Your task to perform on an android device: Toggle the flashlight Image 0: 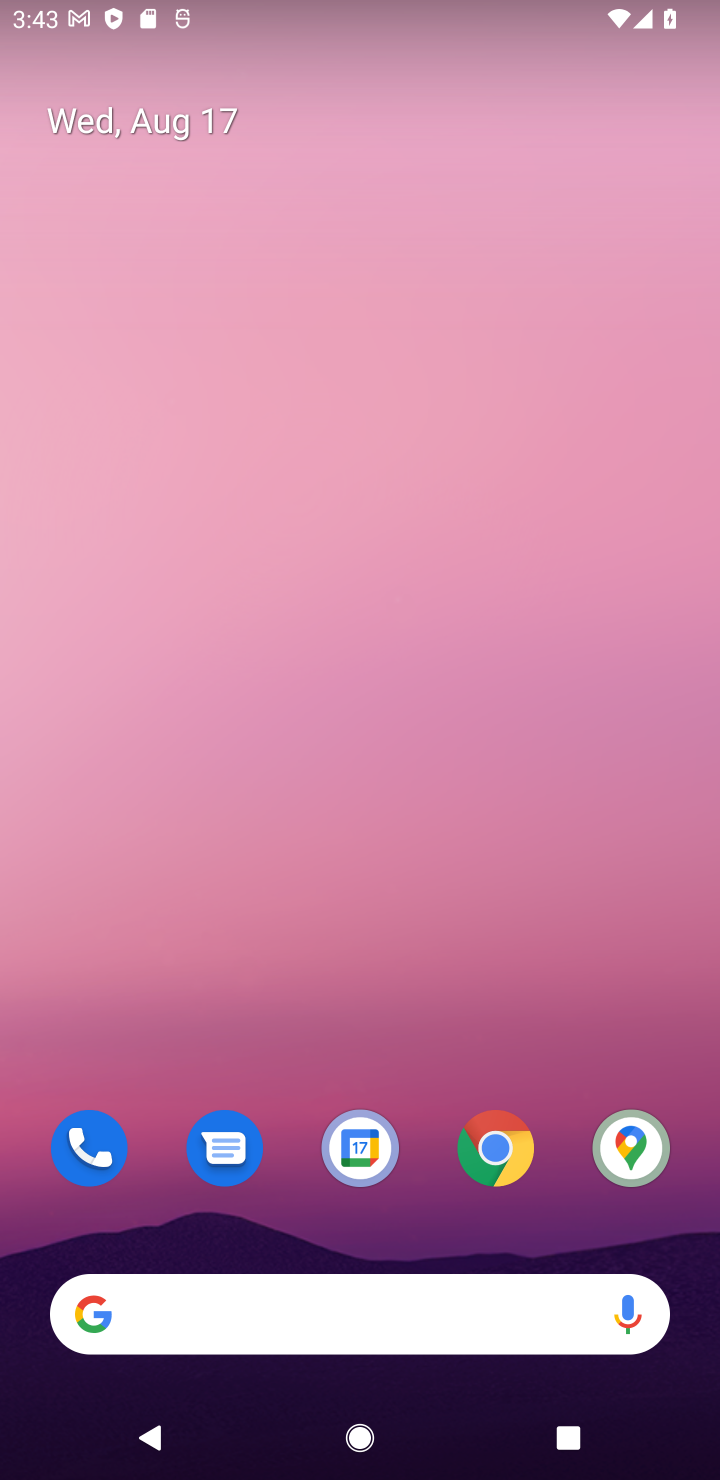
Step 0: drag from (604, 22) to (451, 1460)
Your task to perform on an android device: Toggle the flashlight Image 1: 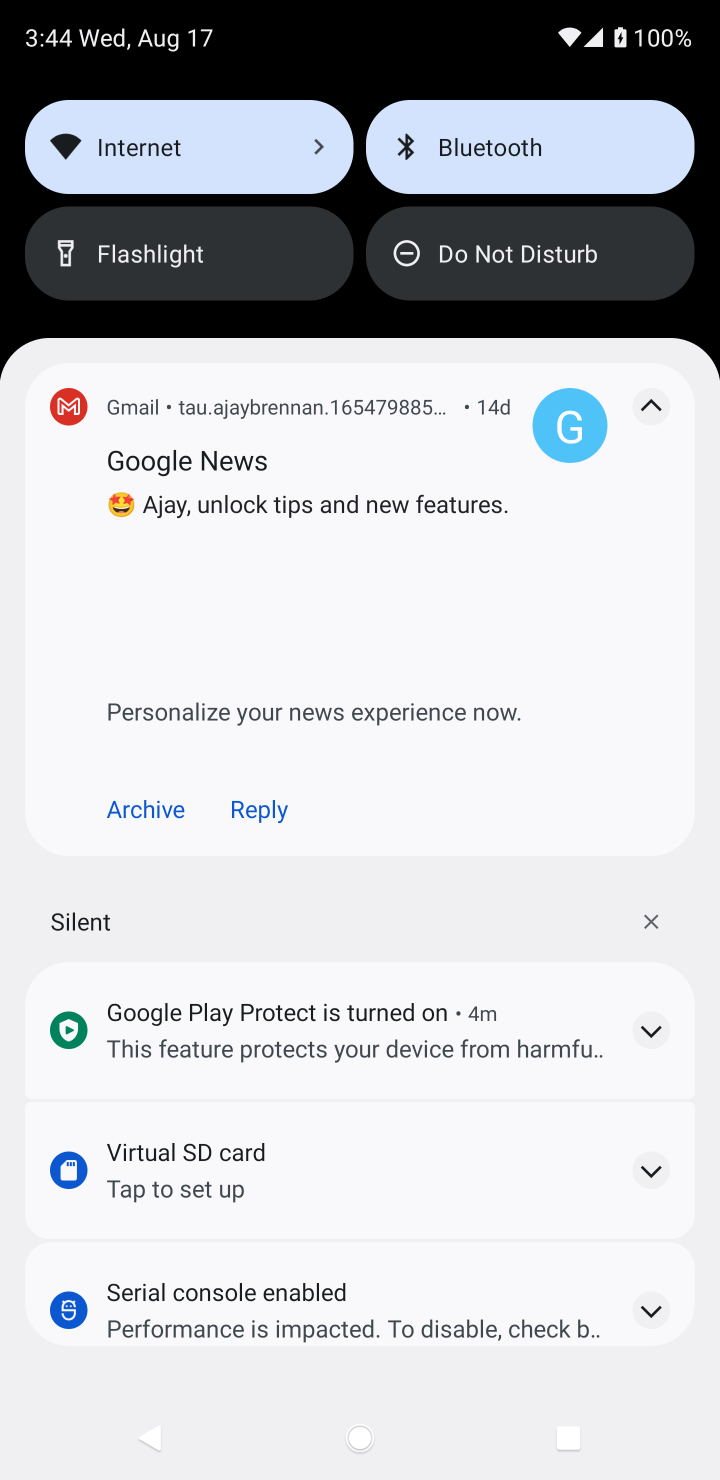
Step 1: click (150, 246)
Your task to perform on an android device: Toggle the flashlight Image 2: 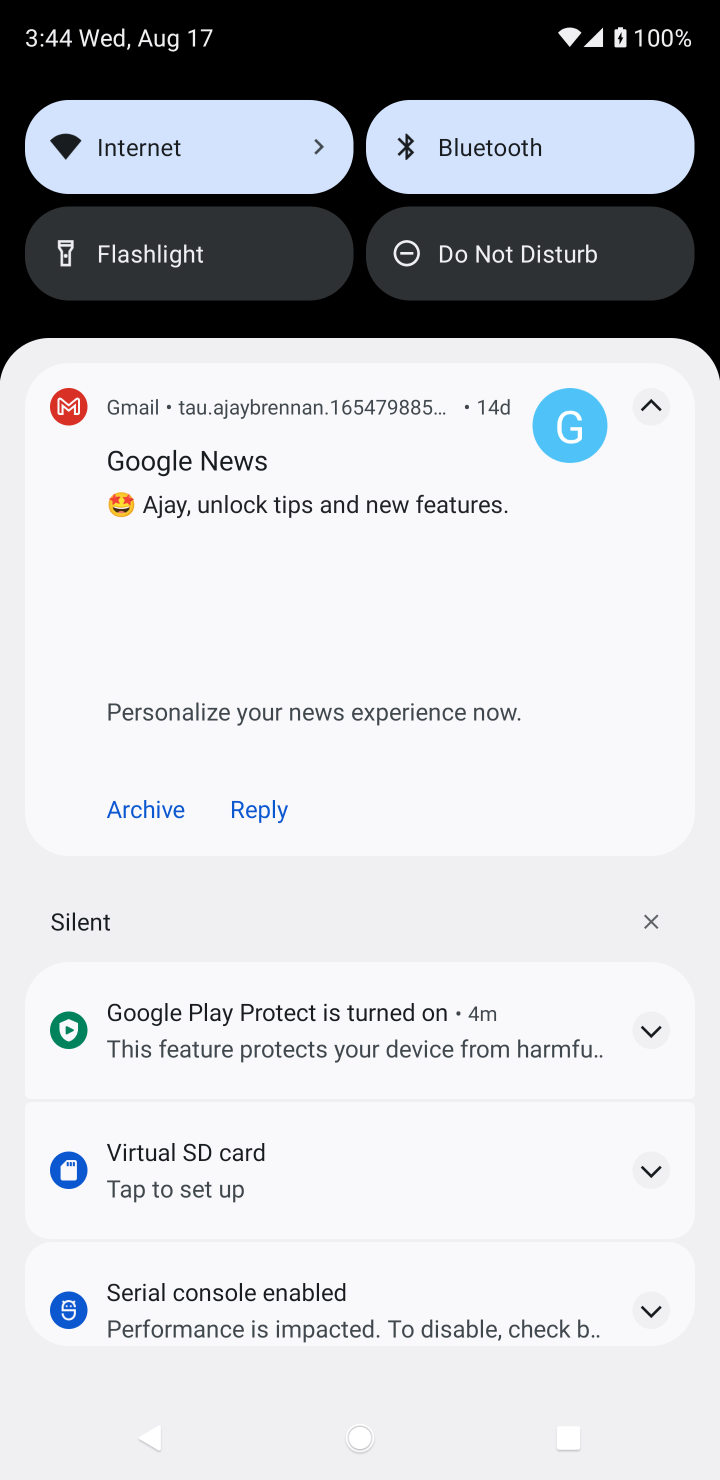
Step 2: task complete